Your task to perform on an android device: open app "DoorDash - Food Delivery" (install if not already installed) Image 0: 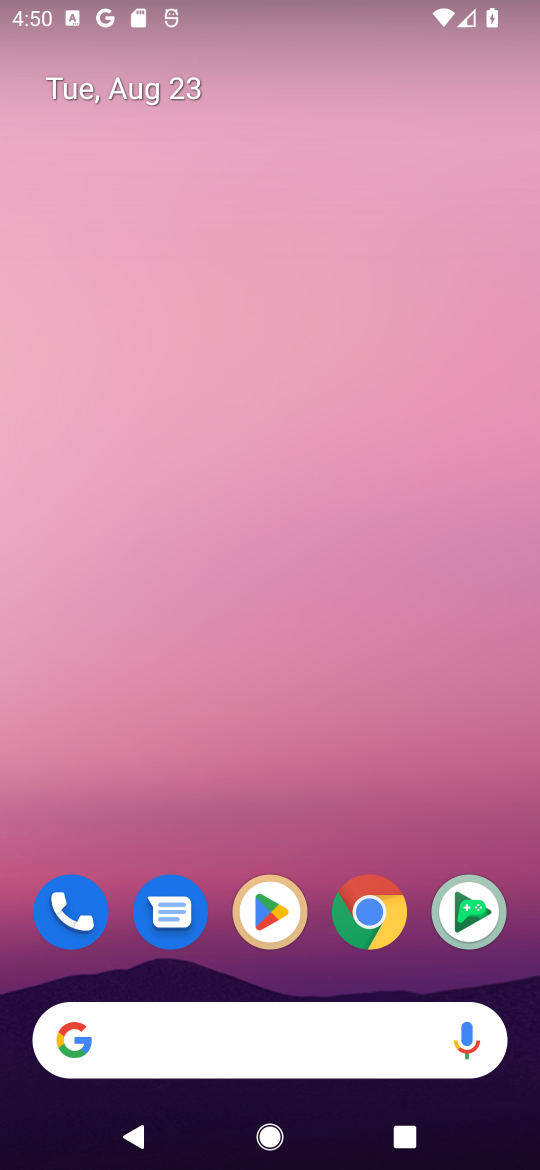
Step 0: click (282, 903)
Your task to perform on an android device: open app "DoorDash - Food Delivery" (install if not already installed) Image 1: 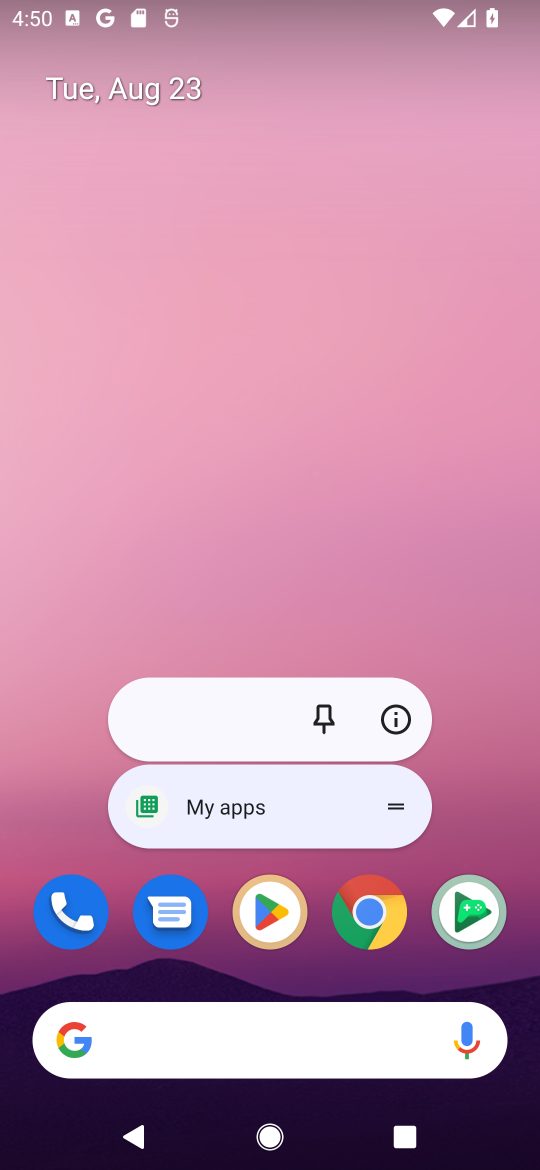
Step 1: click (282, 903)
Your task to perform on an android device: open app "DoorDash - Food Delivery" (install if not already installed) Image 2: 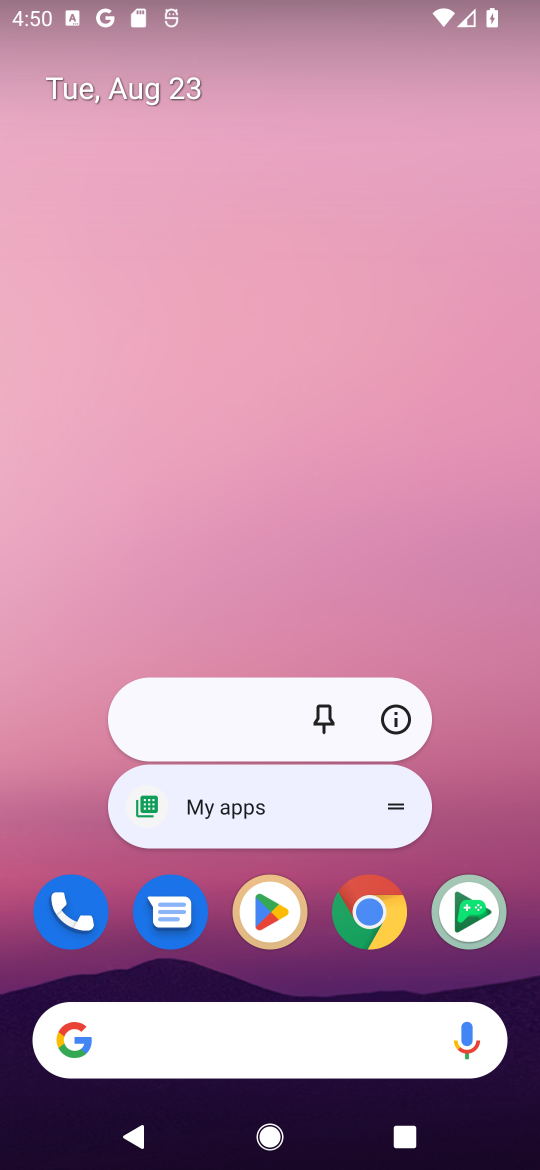
Step 2: click (457, 668)
Your task to perform on an android device: open app "DoorDash - Food Delivery" (install if not already installed) Image 3: 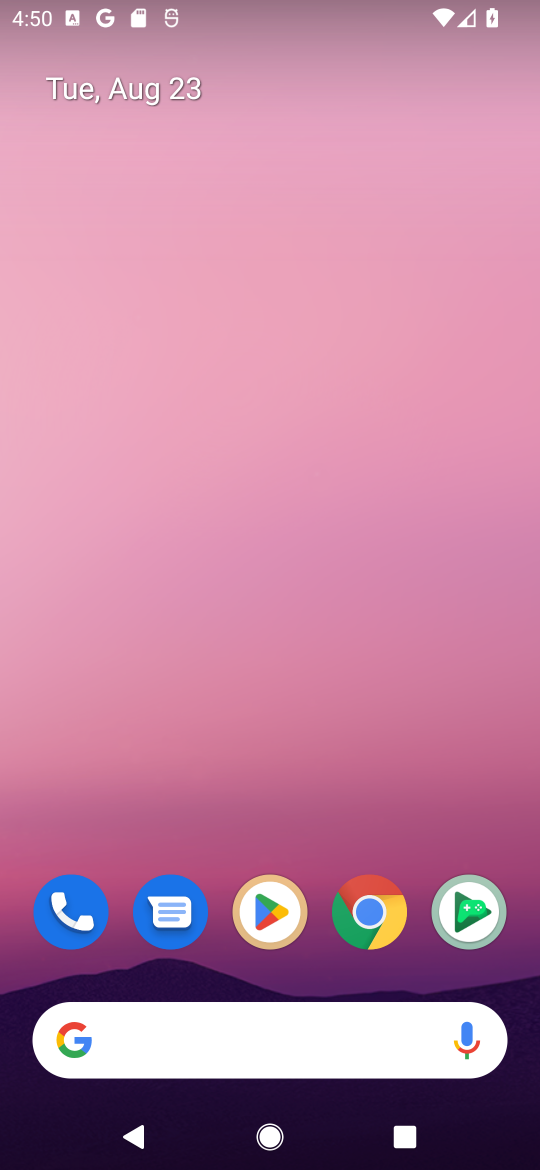
Step 3: drag from (236, 949) to (267, 276)
Your task to perform on an android device: open app "DoorDash - Food Delivery" (install if not already installed) Image 4: 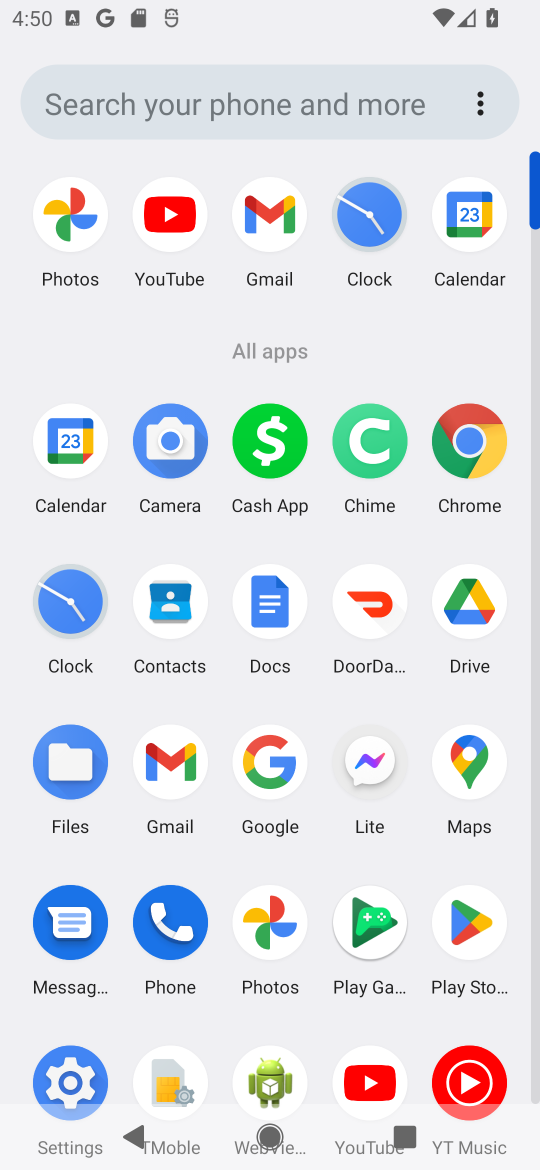
Step 4: click (460, 911)
Your task to perform on an android device: open app "DoorDash - Food Delivery" (install if not already installed) Image 5: 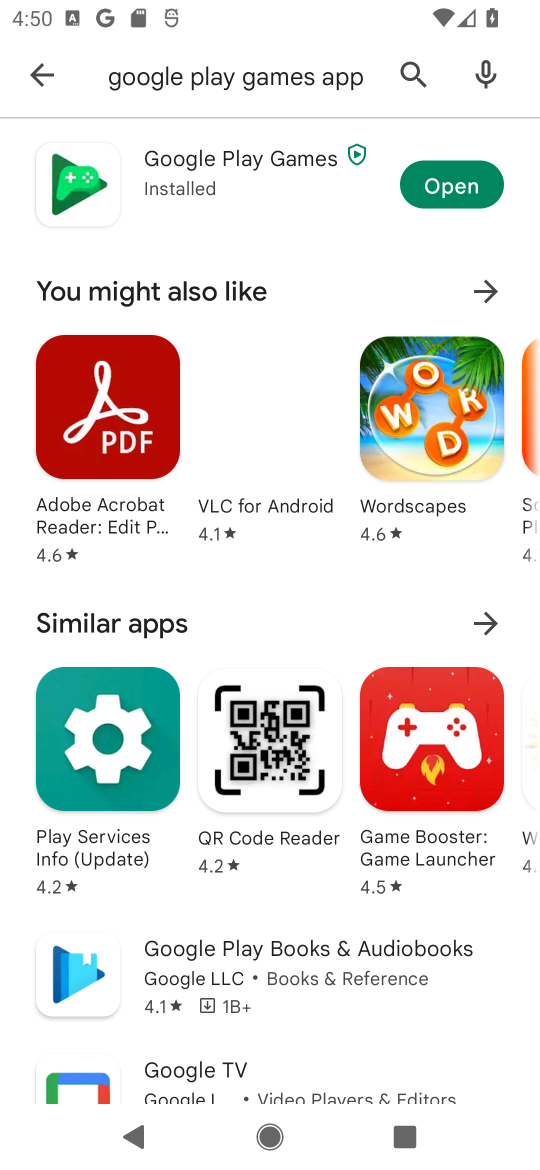
Step 5: click (34, 72)
Your task to perform on an android device: open app "DoorDash - Food Delivery" (install if not already installed) Image 6: 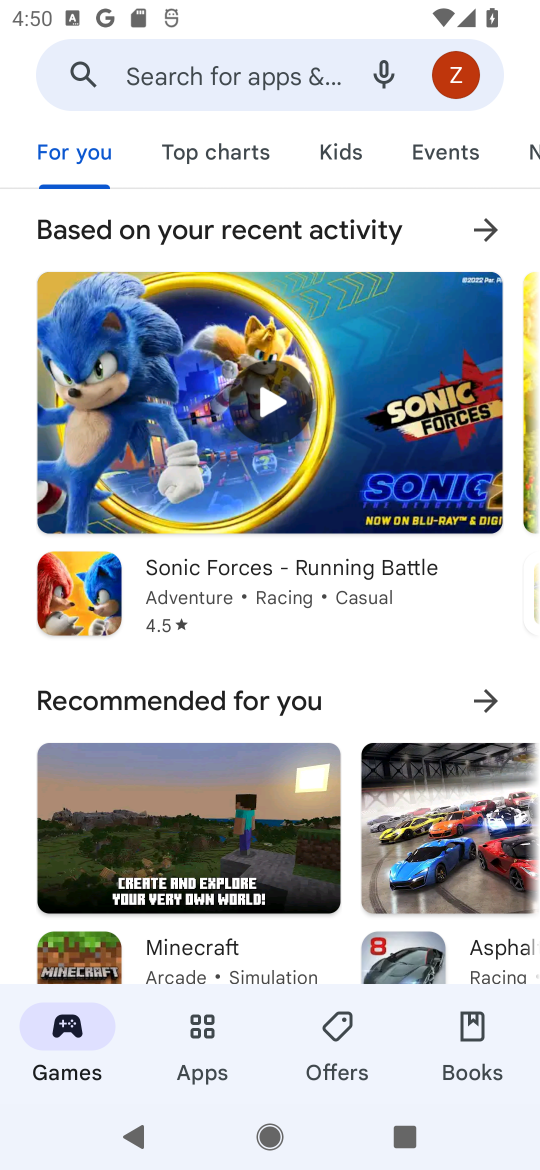
Step 6: click (230, 77)
Your task to perform on an android device: open app "DoorDash - Food Delivery" (install if not already installed) Image 7: 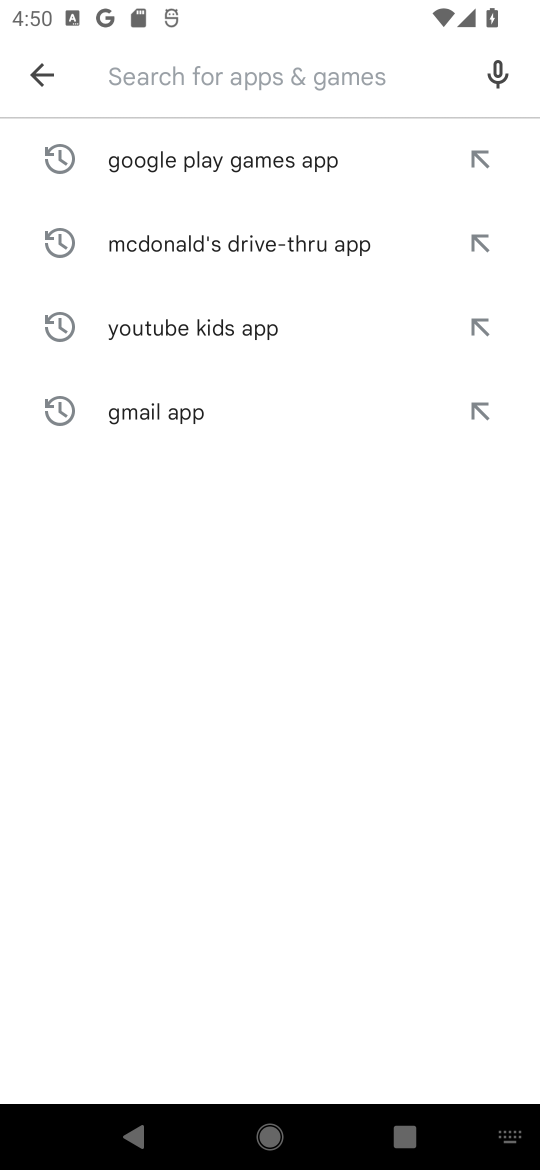
Step 7: type "DoorDash - Food Delivery "
Your task to perform on an android device: open app "DoorDash - Food Delivery" (install if not already installed) Image 8: 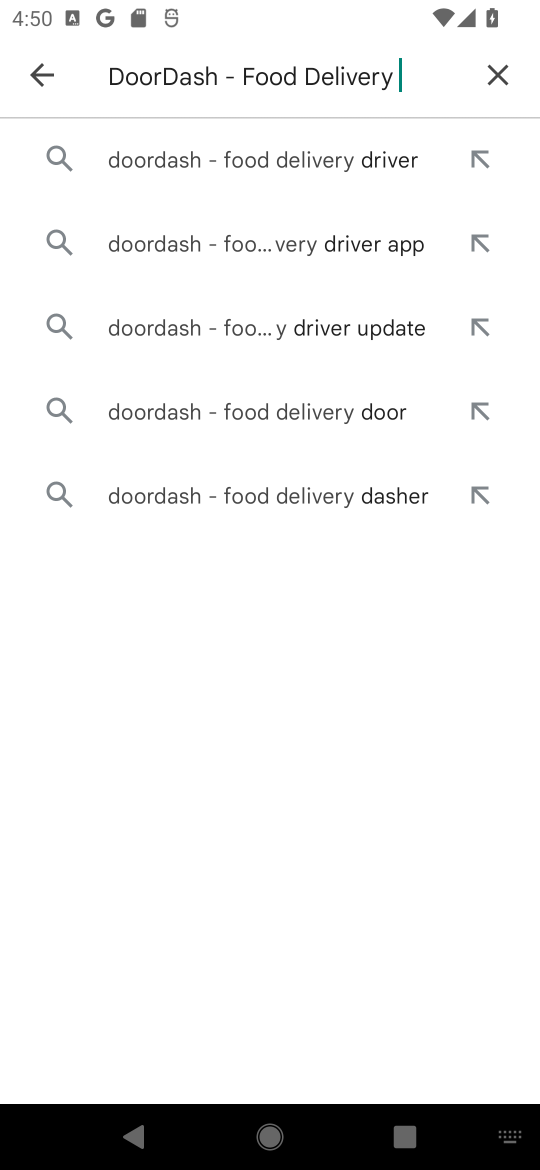
Step 8: click (327, 142)
Your task to perform on an android device: open app "DoorDash - Food Delivery" (install if not already installed) Image 9: 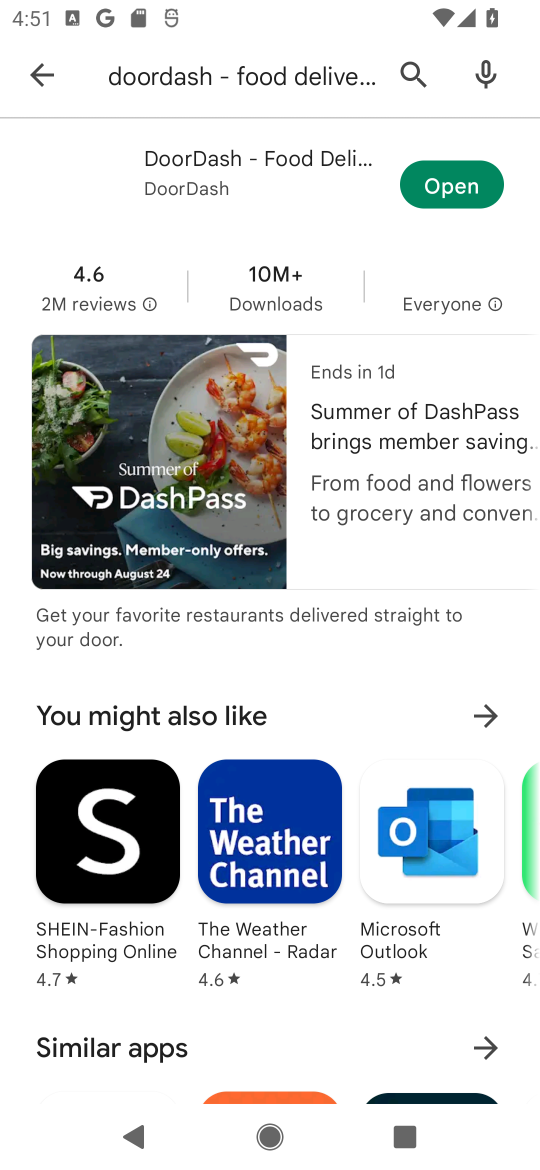
Step 9: click (453, 167)
Your task to perform on an android device: open app "DoorDash - Food Delivery" (install if not already installed) Image 10: 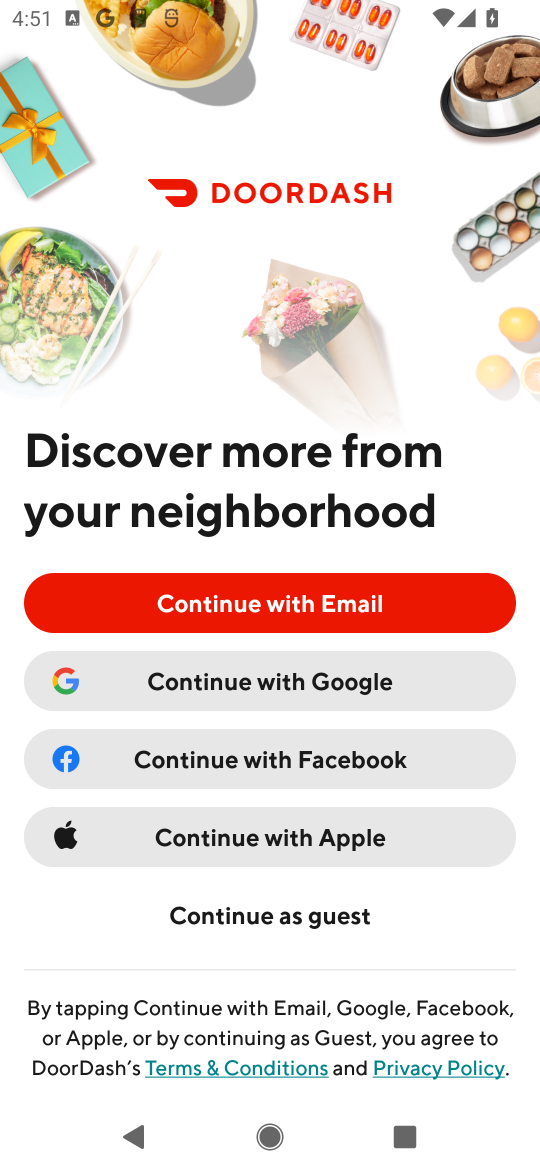
Step 10: task complete